Your task to perform on an android device: View the shopping cart on bestbuy.com. Image 0: 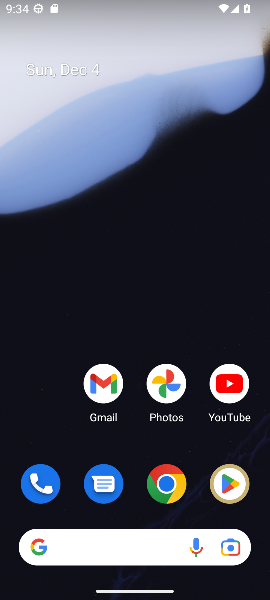
Step 0: click (167, 485)
Your task to perform on an android device: View the shopping cart on bestbuy.com. Image 1: 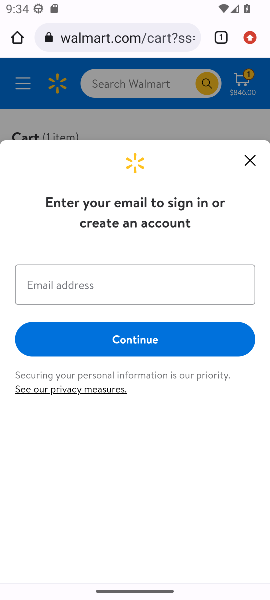
Step 1: click (111, 34)
Your task to perform on an android device: View the shopping cart on bestbuy.com. Image 2: 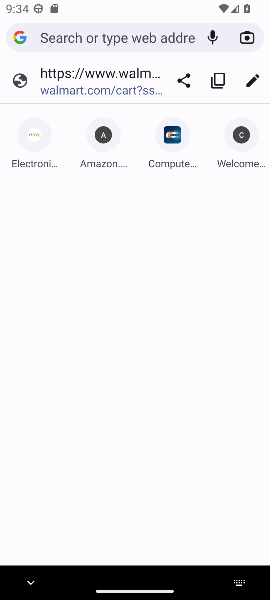
Step 2: type "bestbuy.com"
Your task to perform on an android device: View the shopping cart on bestbuy.com. Image 3: 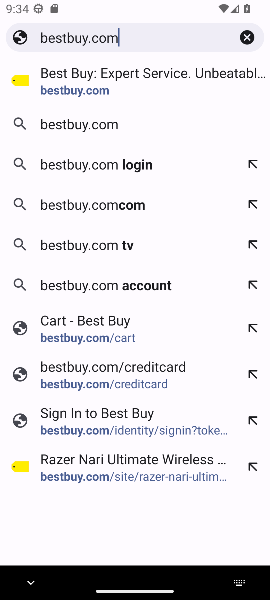
Step 3: click (88, 89)
Your task to perform on an android device: View the shopping cart on bestbuy.com. Image 4: 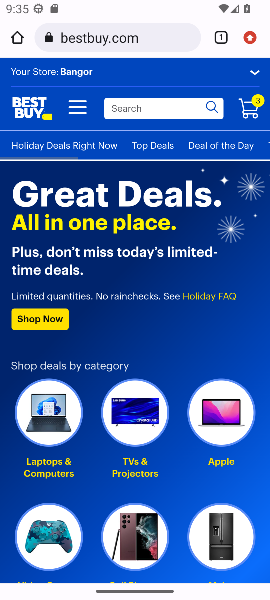
Step 4: click (247, 110)
Your task to perform on an android device: View the shopping cart on bestbuy.com. Image 5: 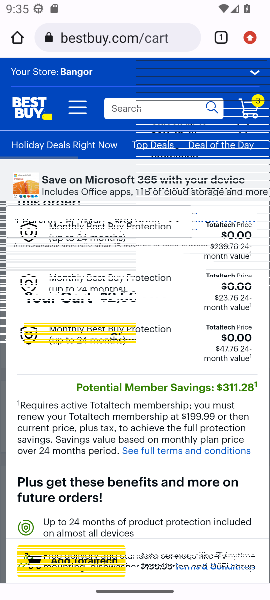
Step 5: click (100, 91)
Your task to perform on an android device: View the shopping cart on bestbuy.com. Image 6: 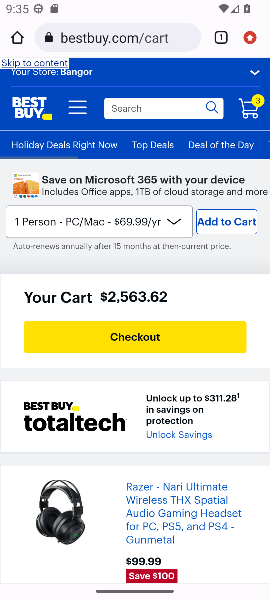
Step 6: click (240, 128)
Your task to perform on an android device: View the shopping cart on bestbuy.com. Image 7: 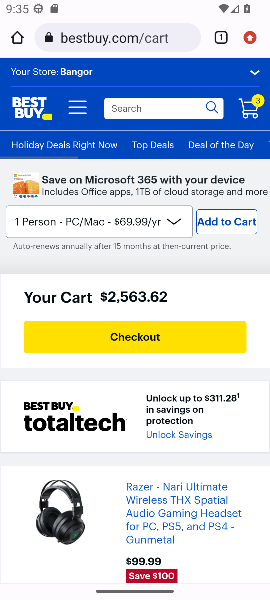
Step 7: task complete